Your task to perform on an android device: delete a single message in the gmail app Image 0: 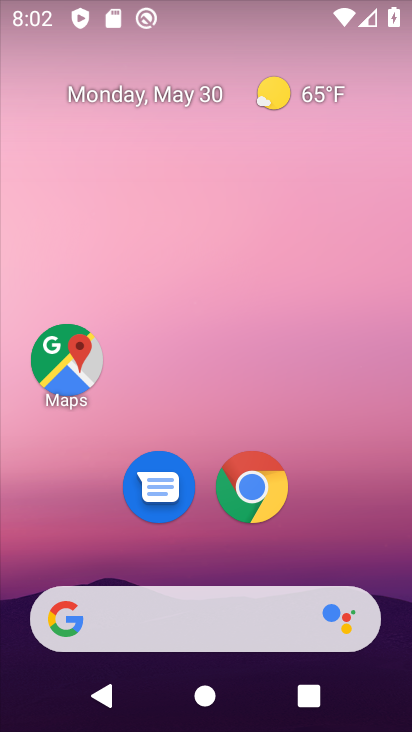
Step 0: drag from (343, 533) to (395, 145)
Your task to perform on an android device: delete a single message in the gmail app Image 1: 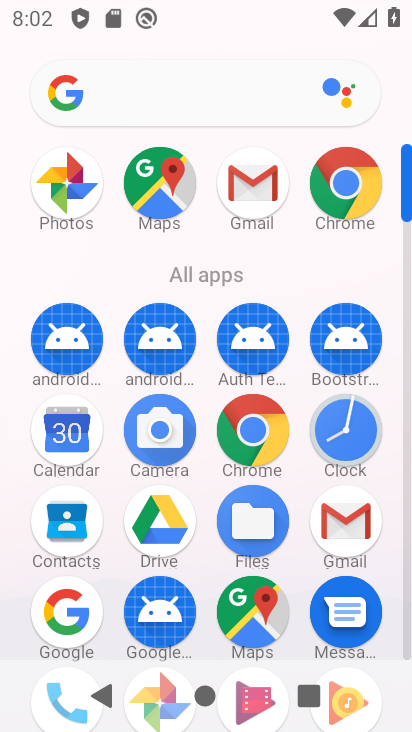
Step 1: click (279, 166)
Your task to perform on an android device: delete a single message in the gmail app Image 2: 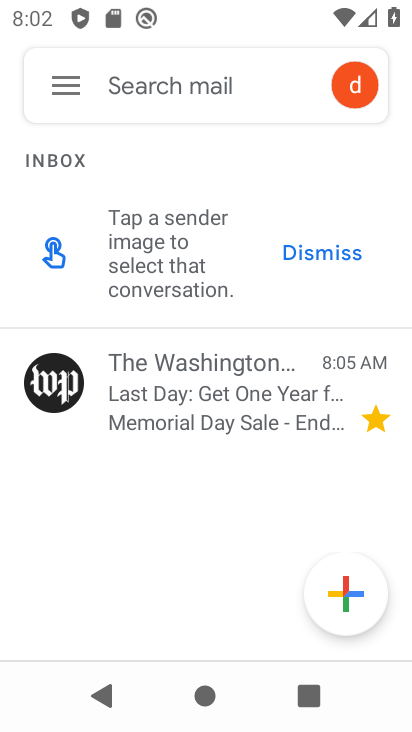
Step 2: click (210, 396)
Your task to perform on an android device: delete a single message in the gmail app Image 3: 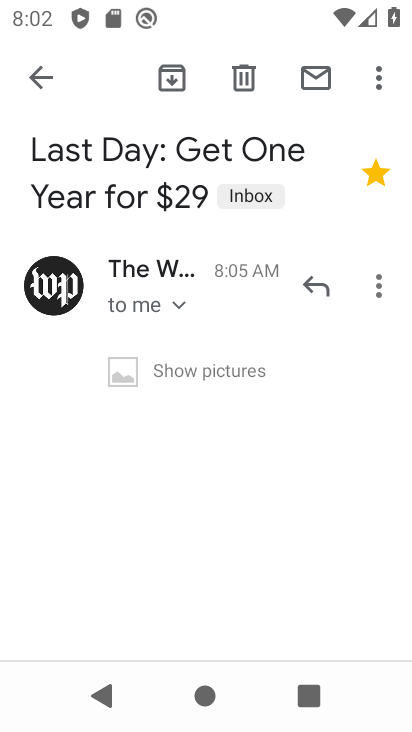
Step 3: click (235, 85)
Your task to perform on an android device: delete a single message in the gmail app Image 4: 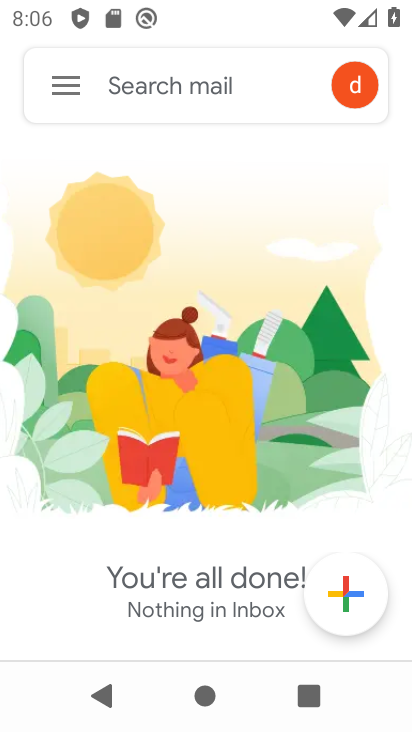
Step 4: task complete